Your task to perform on an android device: manage bookmarks in the chrome app Image 0: 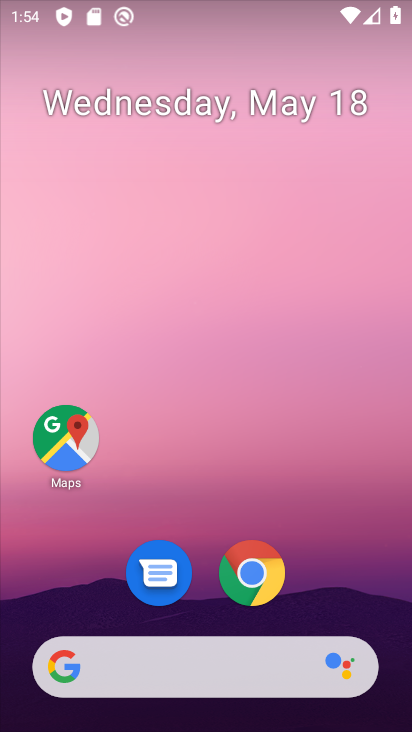
Step 0: click (258, 578)
Your task to perform on an android device: manage bookmarks in the chrome app Image 1: 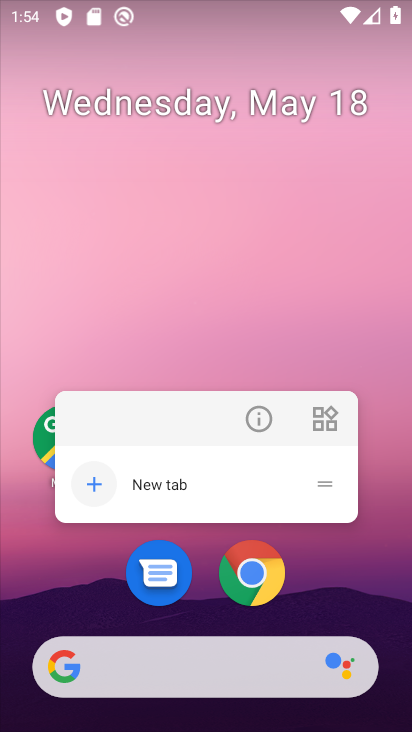
Step 1: click (260, 595)
Your task to perform on an android device: manage bookmarks in the chrome app Image 2: 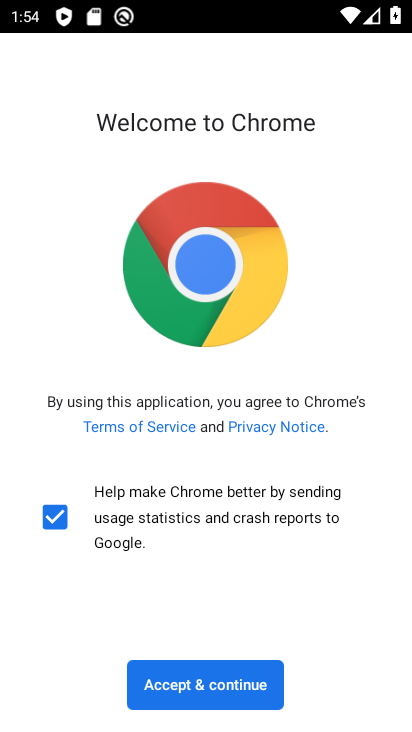
Step 2: click (187, 684)
Your task to perform on an android device: manage bookmarks in the chrome app Image 3: 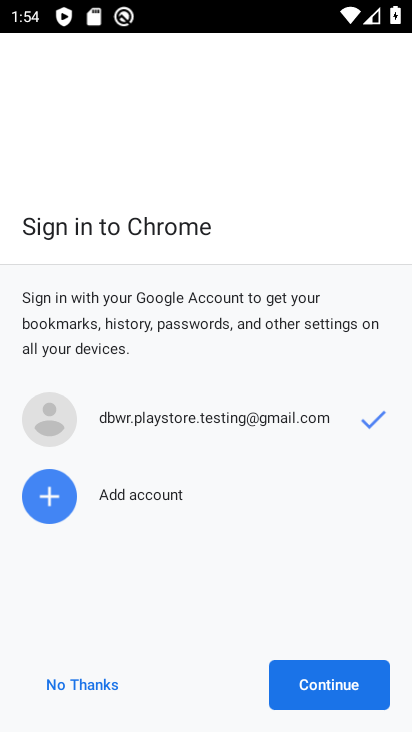
Step 3: click (344, 685)
Your task to perform on an android device: manage bookmarks in the chrome app Image 4: 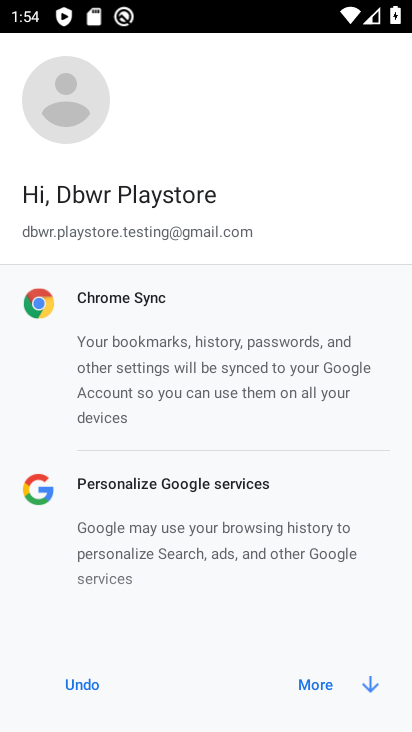
Step 4: click (344, 685)
Your task to perform on an android device: manage bookmarks in the chrome app Image 5: 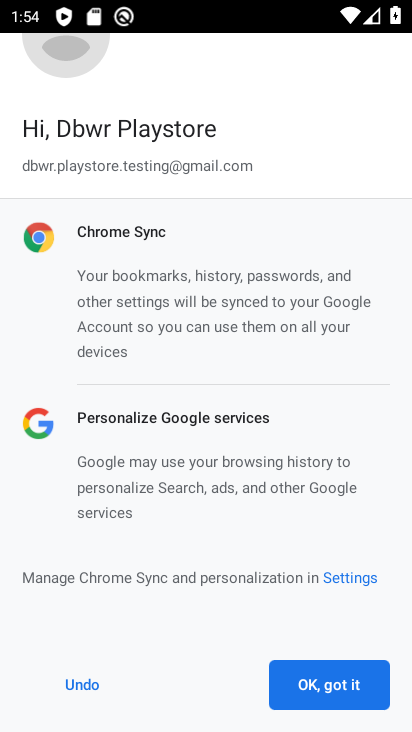
Step 5: click (344, 685)
Your task to perform on an android device: manage bookmarks in the chrome app Image 6: 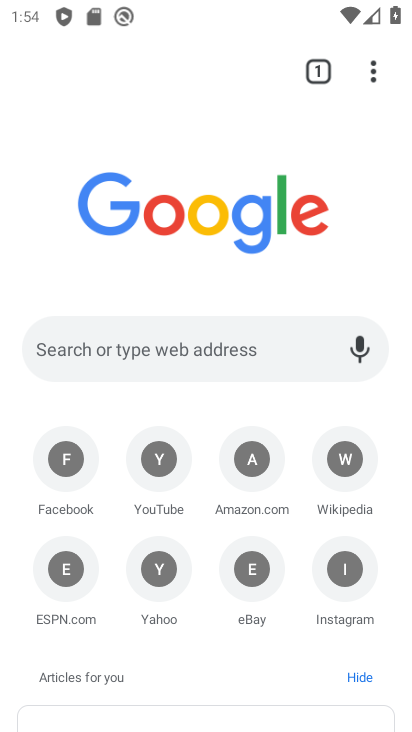
Step 6: task complete